Your task to perform on an android device: install app "Google Home" Image 0: 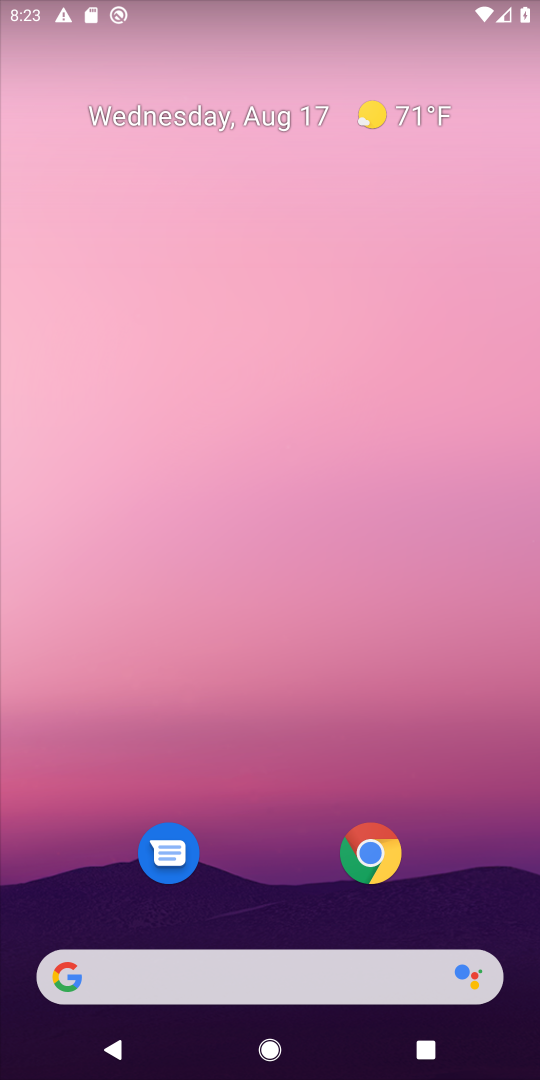
Step 0: drag from (257, 864) to (291, 210)
Your task to perform on an android device: install app "Google Home" Image 1: 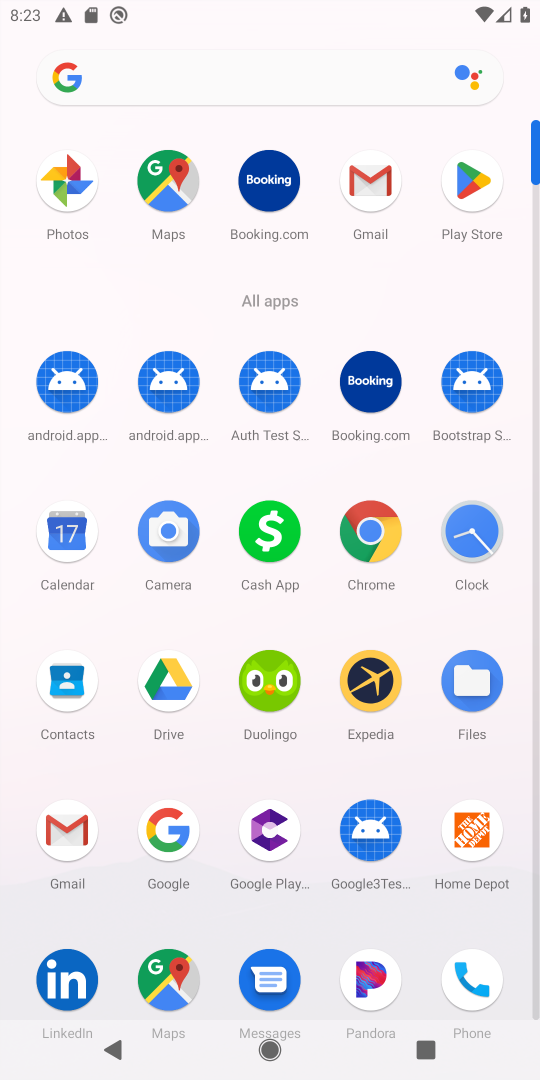
Step 1: click (463, 182)
Your task to perform on an android device: install app "Google Home" Image 2: 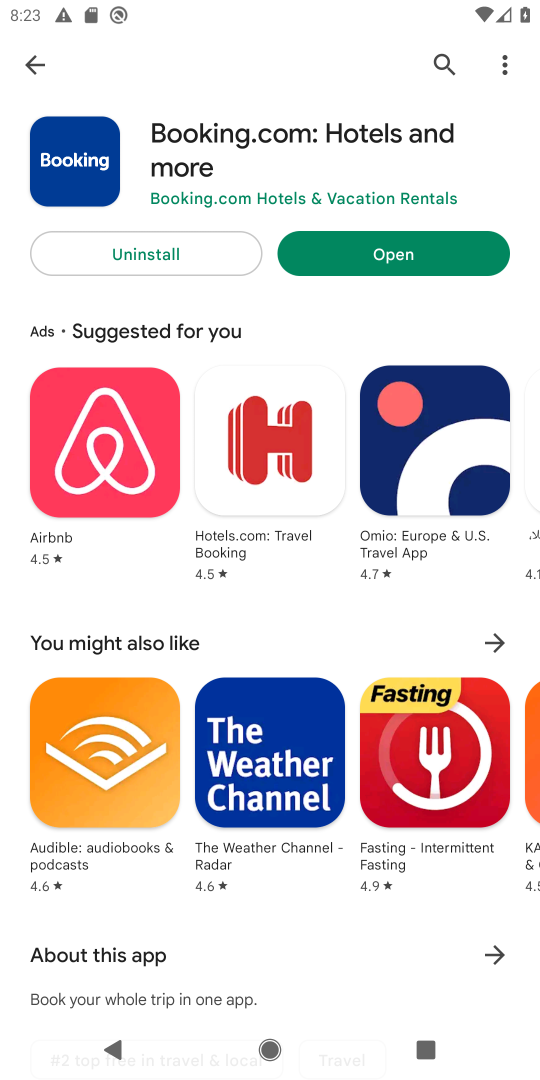
Step 2: click (428, 45)
Your task to perform on an android device: install app "Google Home" Image 3: 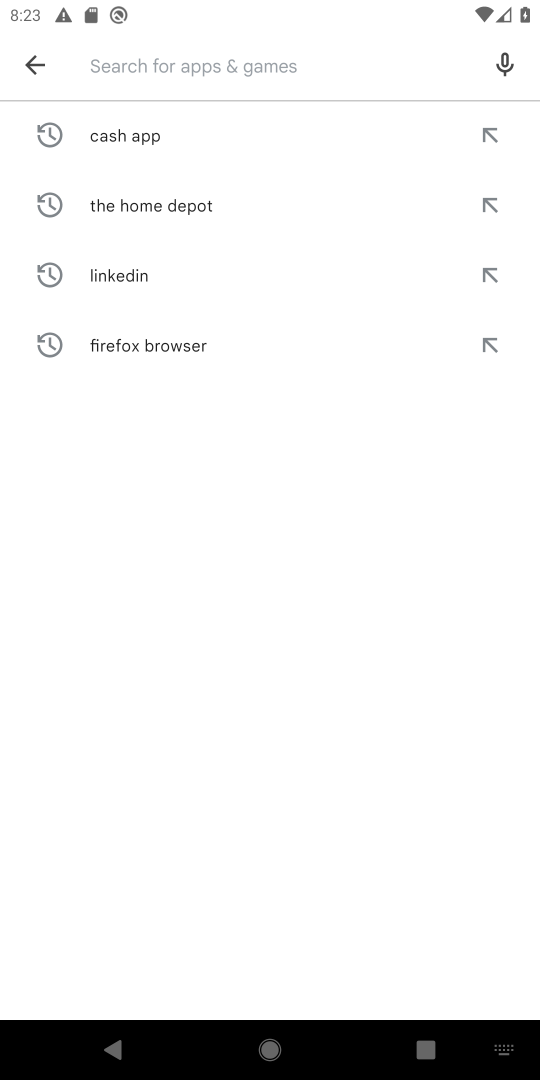
Step 3: type "Google Home"
Your task to perform on an android device: install app "Google Home" Image 4: 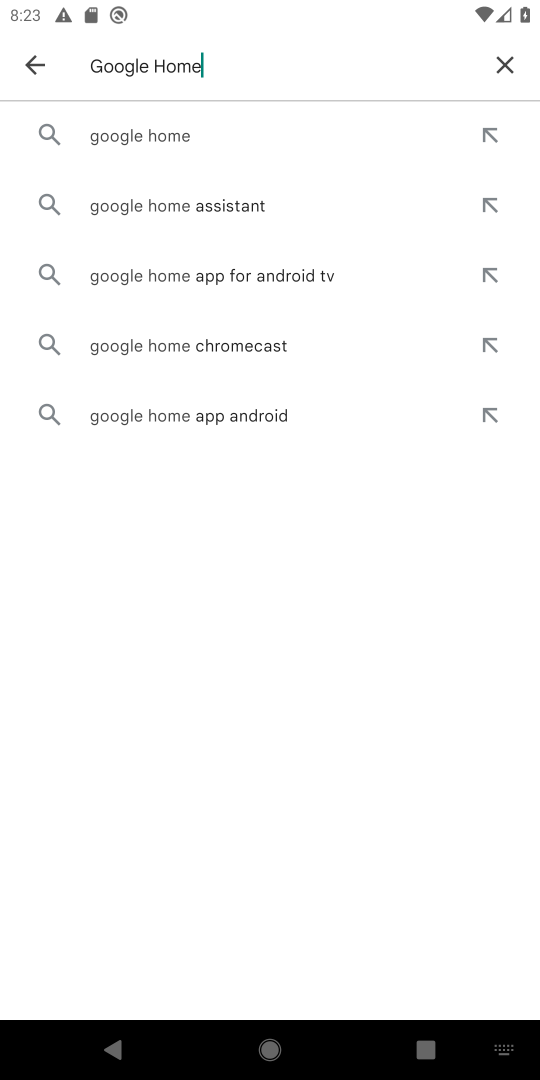
Step 4: click (191, 120)
Your task to perform on an android device: install app "Google Home" Image 5: 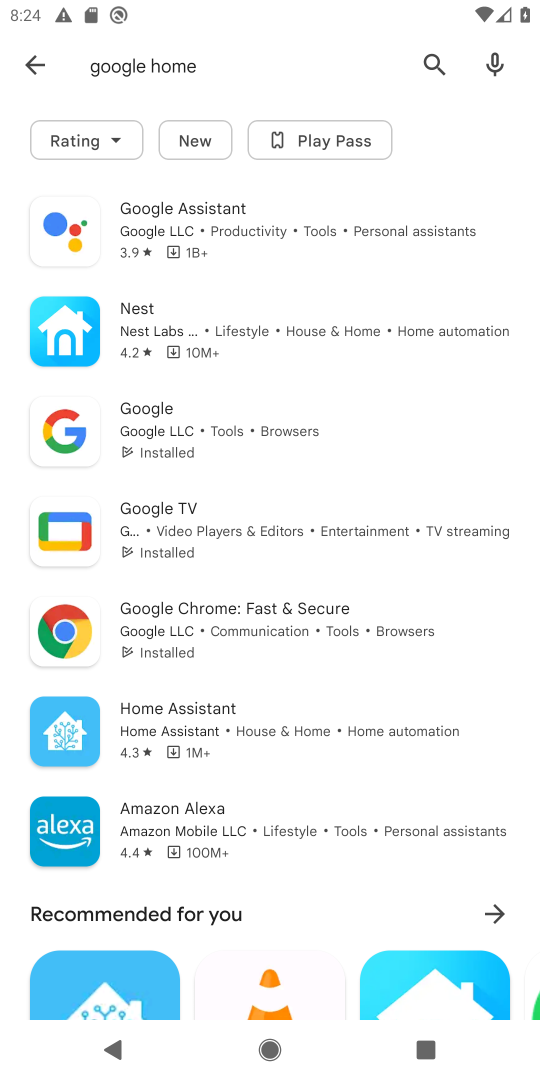
Step 5: task complete